Your task to perform on an android device: delete the emails in spam in the gmail app Image 0: 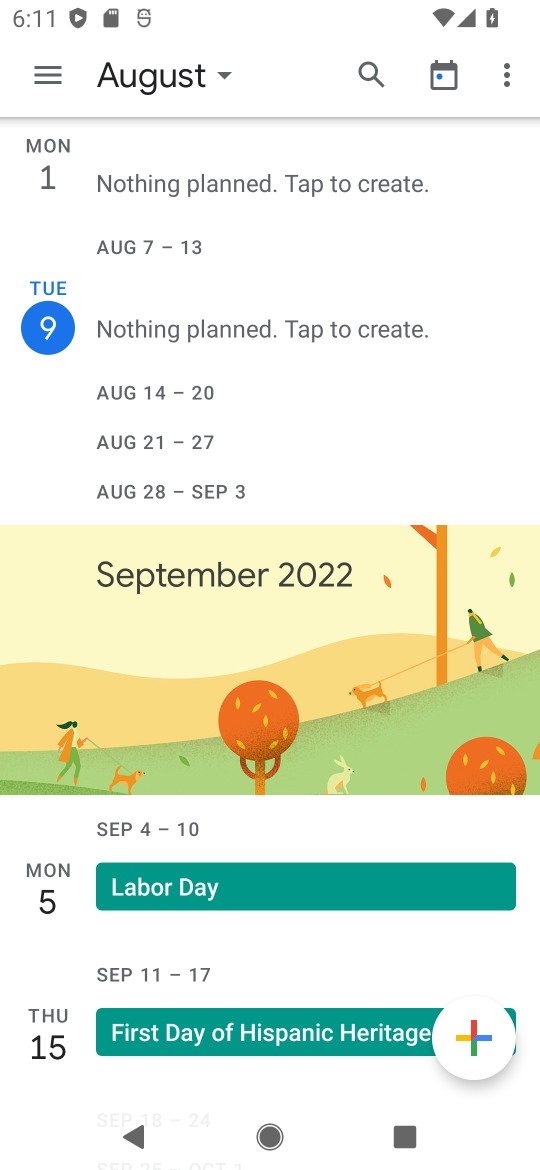
Step 0: press home button
Your task to perform on an android device: delete the emails in spam in the gmail app Image 1: 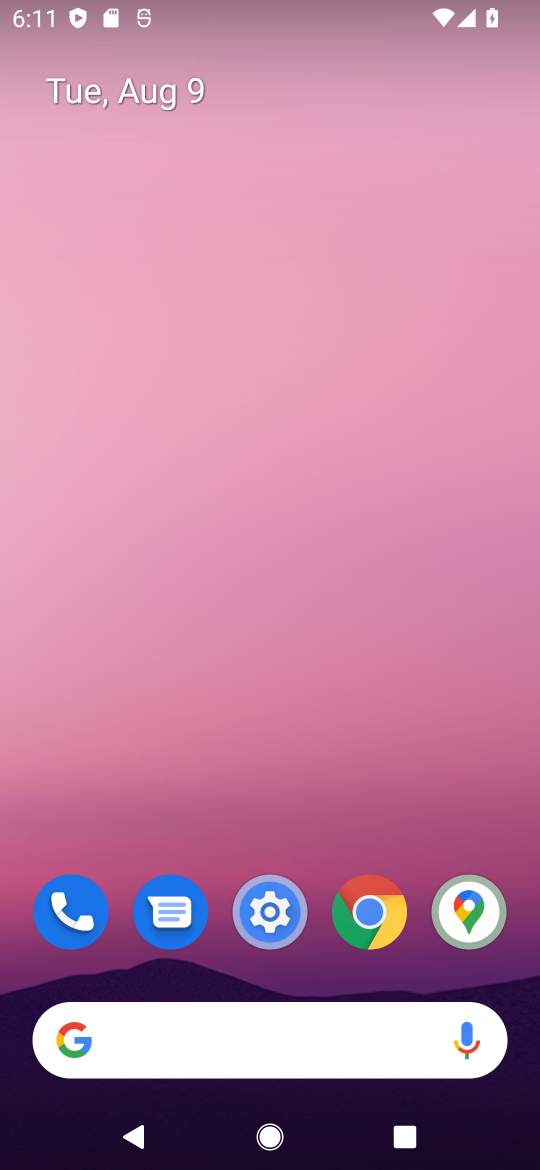
Step 1: drag from (317, 710) to (363, 43)
Your task to perform on an android device: delete the emails in spam in the gmail app Image 2: 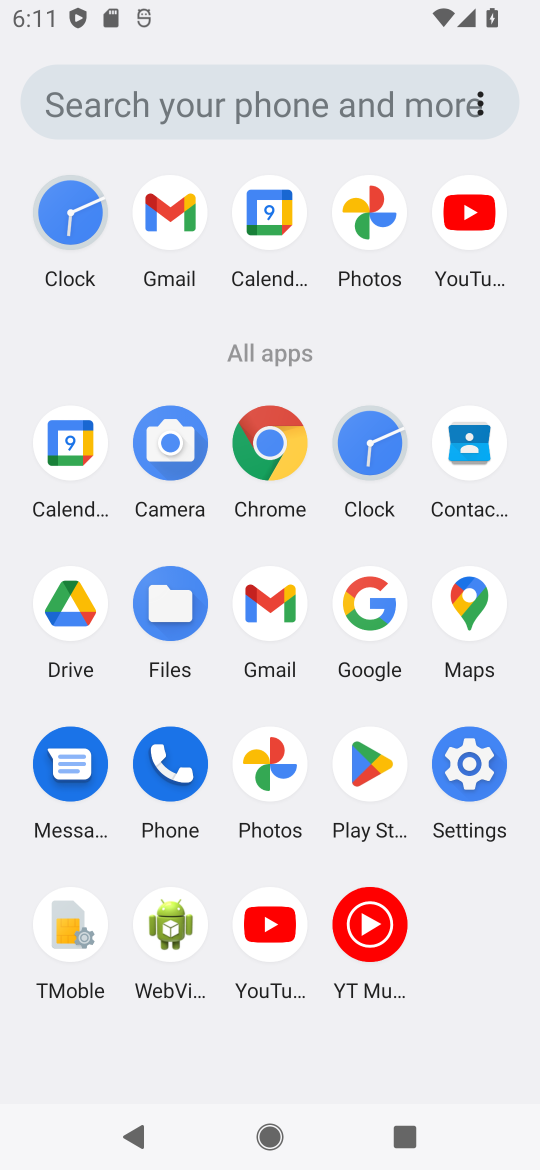
Step 2: click (179, 216)
Your task to perform on an android device: delete the emails in spam in the gmail app Image 3: 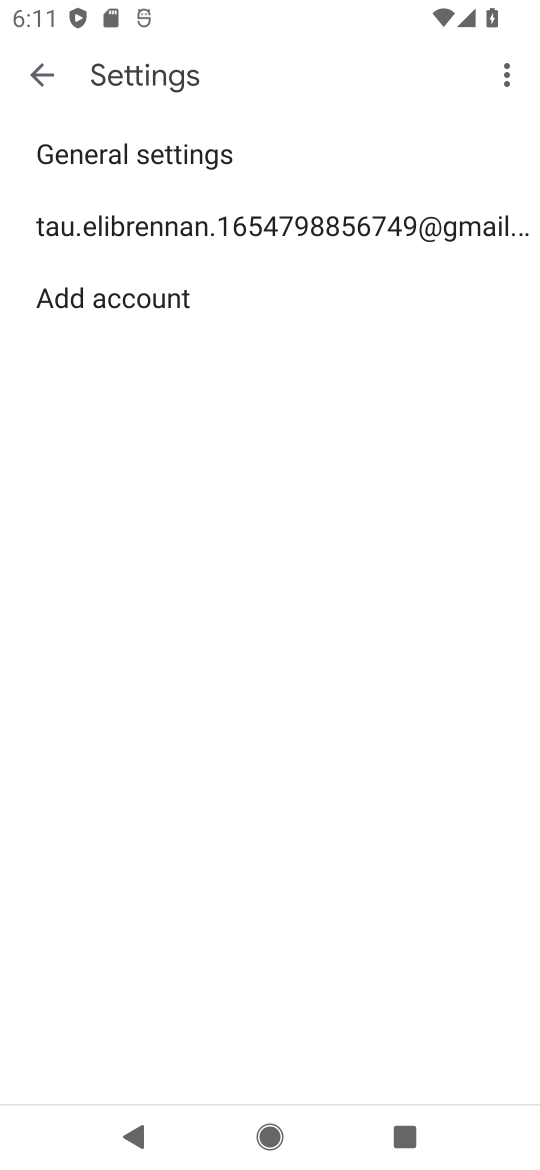
Step 3: click (180, 225)
Your task to perform on an android device: delete the emails in spam in the gmail app Image 4: 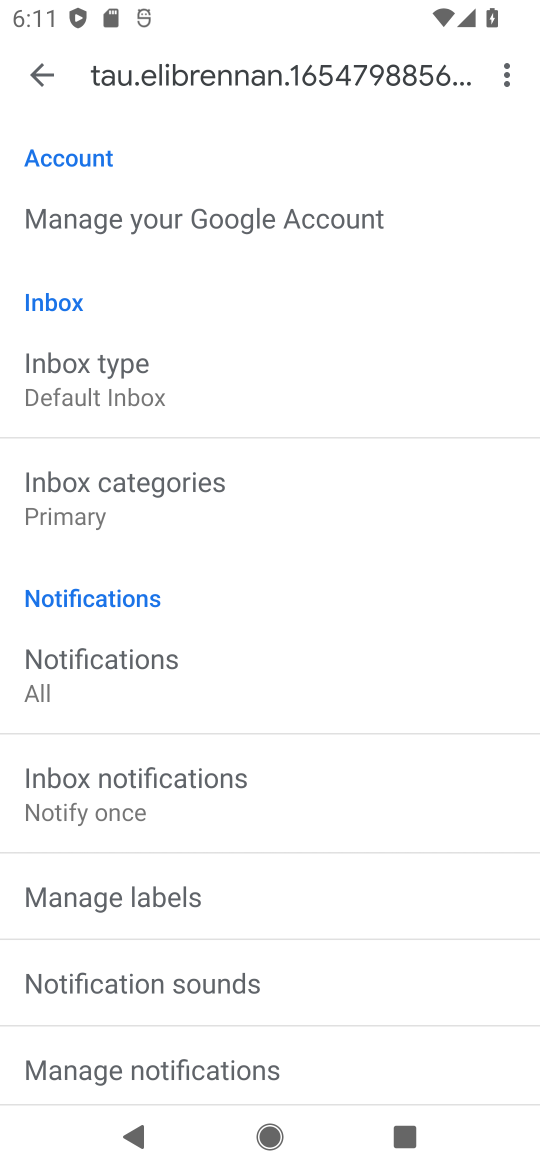
Step 4: click (40, 62)
Your task to perform on an android device: delete the emails in spam in the gmail app Image 5: 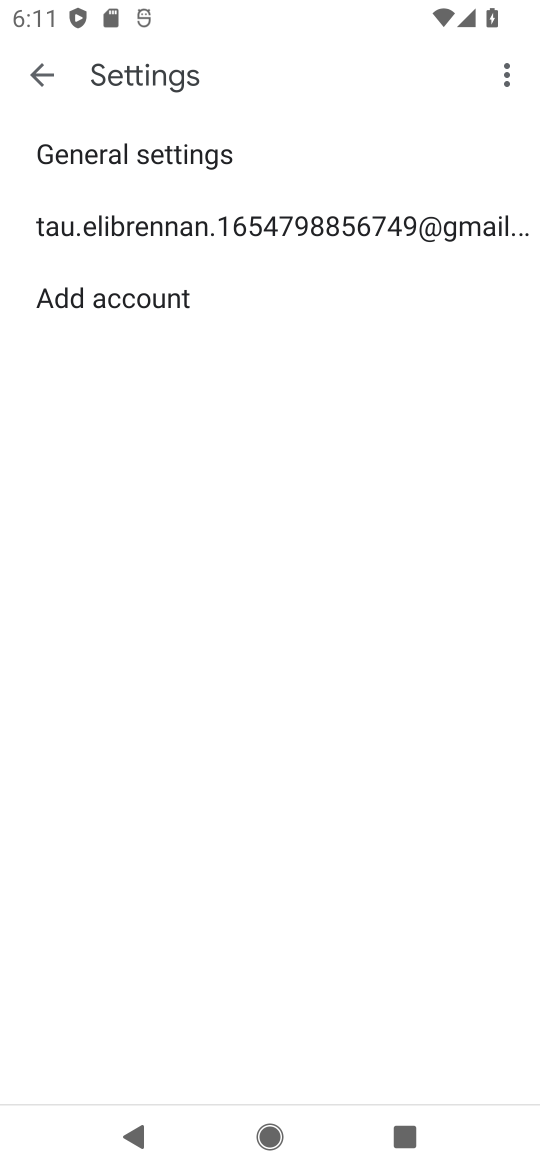
Step 5: click (35, 74)
Your task to perform on an android device: delete the emails in spam in the gmail app Image 6: 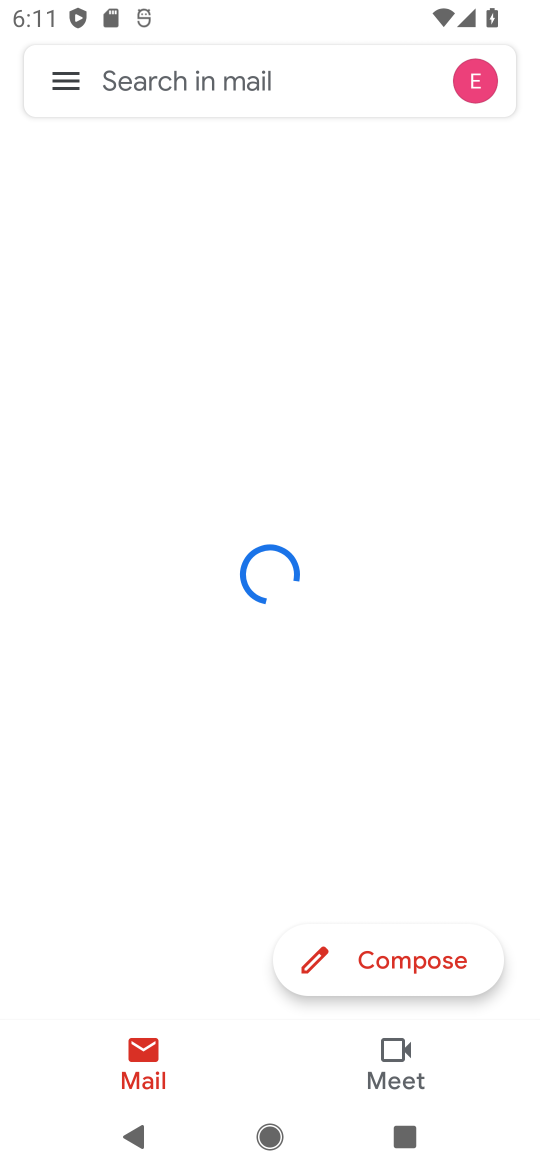
Step 6: click (69, 86)
Your task to perform on an android device: delete the emails in spam in the gmail app Image 7: 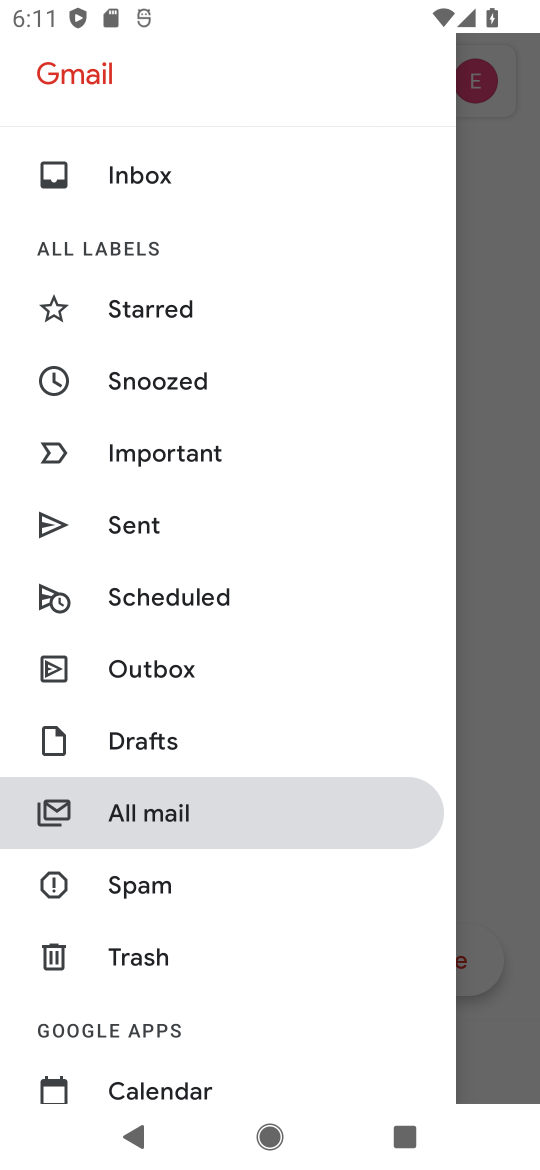
Step 7: click (153, 885)
Your task to perform on an android device: delete the emails in spam in the gmail app Image 8: 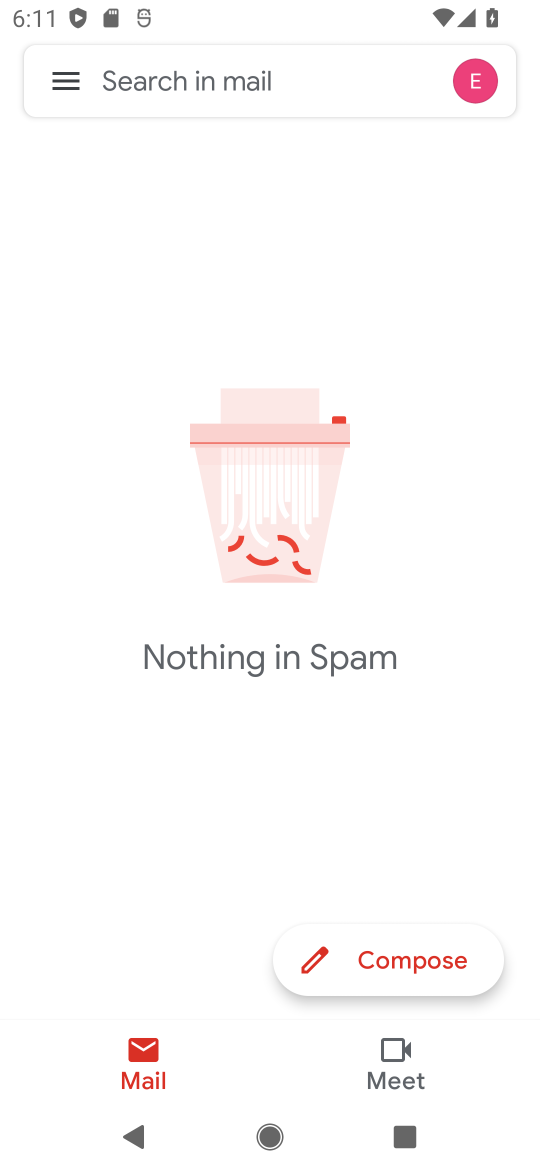
Step 8: task complete